Your task to perform on an android device: find snoozed emails in the gmail app Image 0: 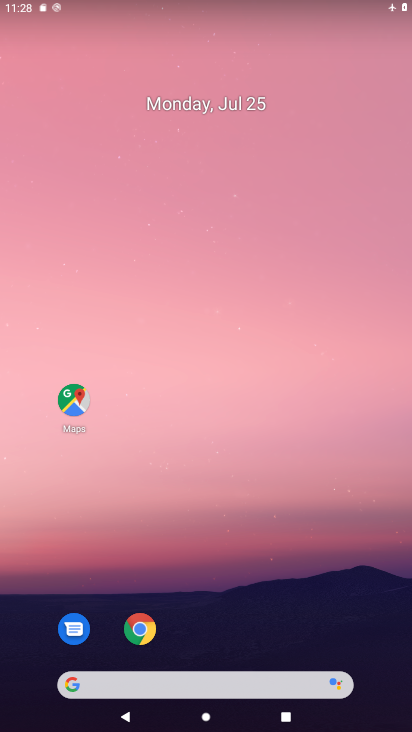
Step 0: drag from (203, 683) to (237, 200)
Your task to perform on an android device: find snoozed emails in the gmail app Image 1: 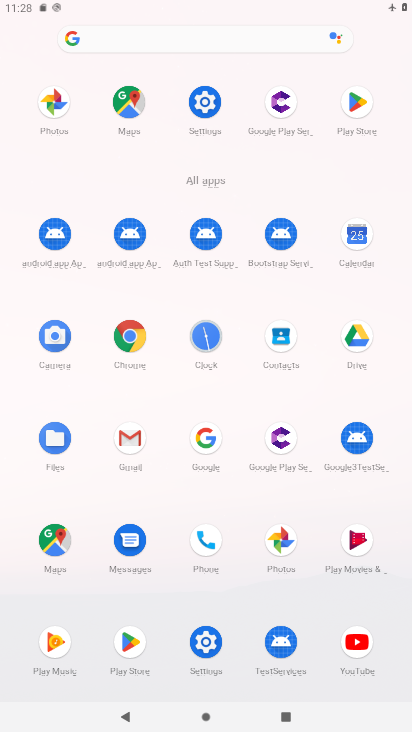
Step 1: click (123, 444)
Your task to perform on an android device: find snoozed emails in the gmail app Image 2: 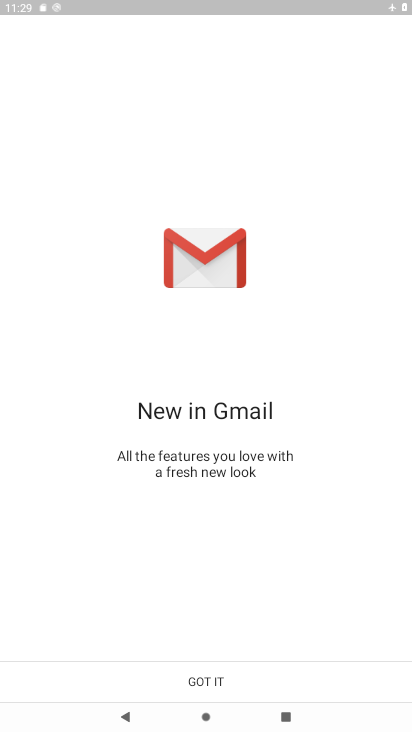
Step 2: click (207, 679)
Your task to perform on an android device: find snoozed emails in the gmail app Image 3: 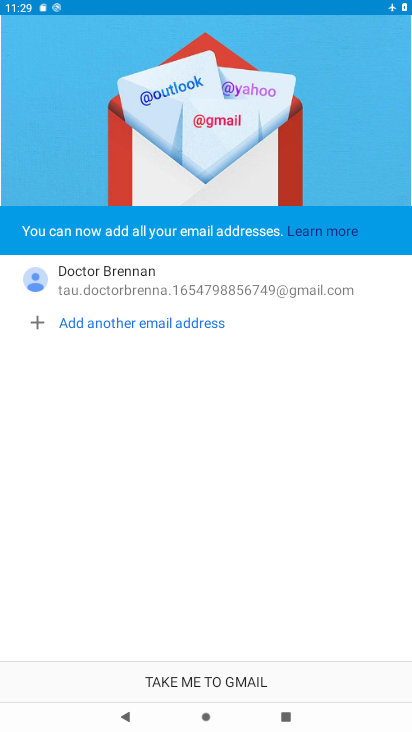
Step 3: click (202, 678)
Your task to perform on an android device: find snoozed emails in the gmail app Image 4: 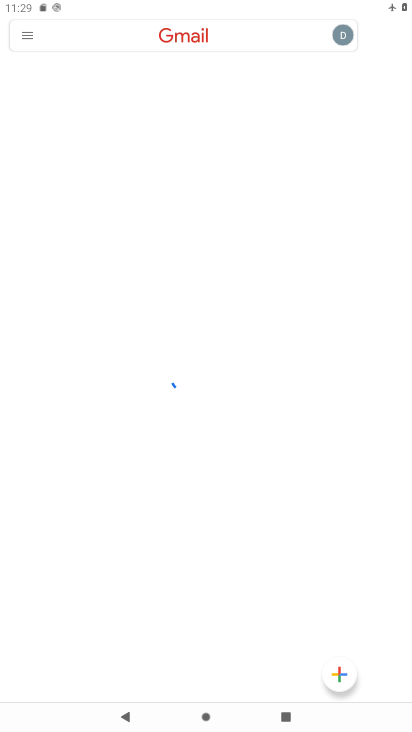
Step 4: click (22, 41)
Your task to perform on an android device: find snoozed emails in the gmail app Image 5: 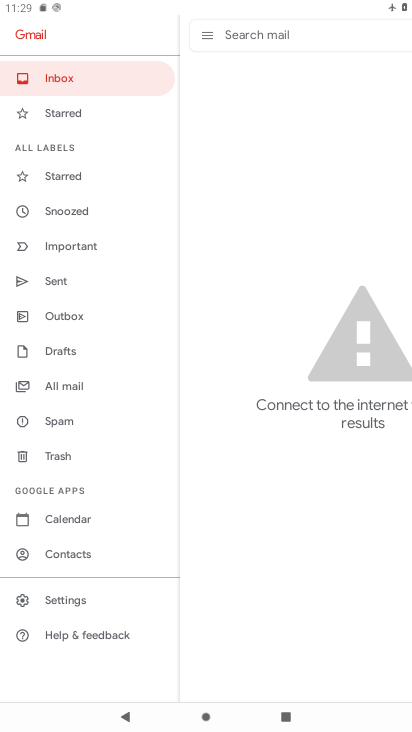
Step 5: click (62, 212)
Your task to perform on an android device: find snoozed emails in the gmail app Image 6: 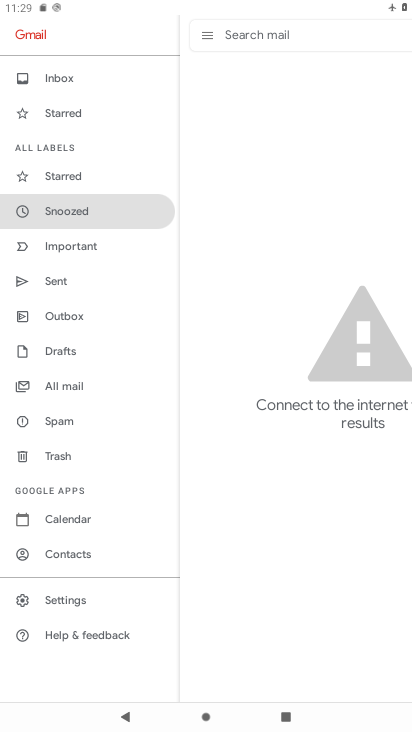
Step 6: task complete